Your task to perform on an android device: Play the new Ariana Grande video on YouTube Image 0: 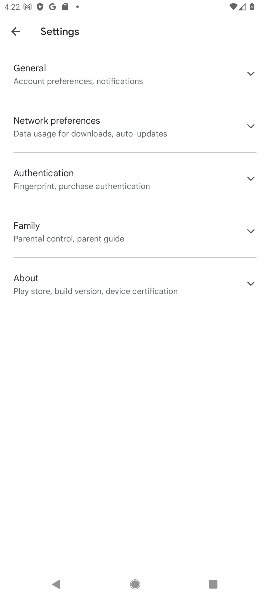
Step 0: press home button
Your task to perform on an android device: Play the new Ariana Grande video on YouTube Image 1: 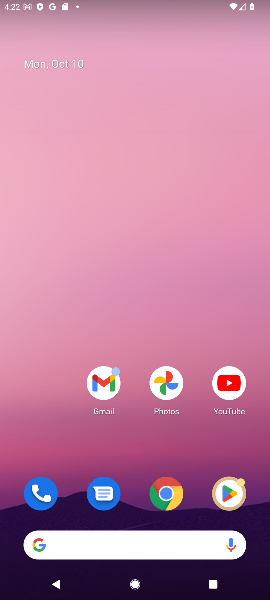
Step 1: click (231, 393)
Your task to perform on an android device: Play the new Ariana Grande video on YouTube Image 2: 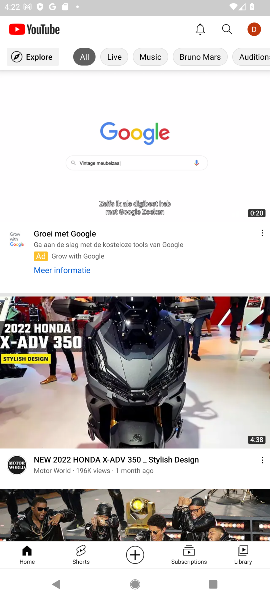
Step 2: click (226, 34)
Your task to perform on an android device: Play the new Ariana Grande video on YouTube Image 3: 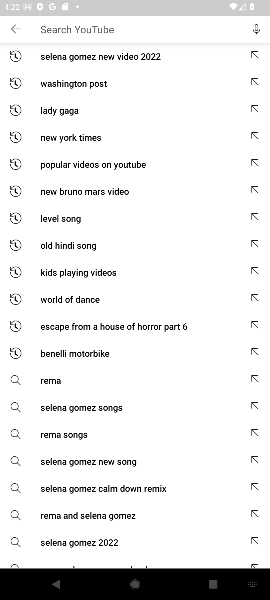
Step 3: type "Ariana Grande"
Your task to perform on an android device: Play the new Ariana Grande video on YouTube Image 4: 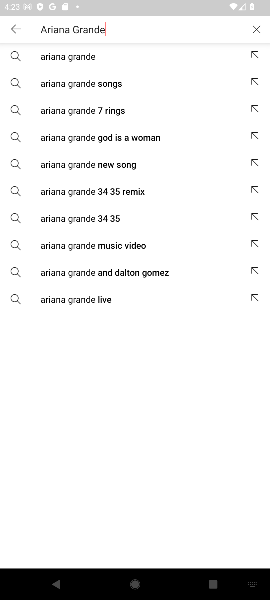
Step 4: click (94, 54)
Your task to perform on an android device: Play the new Ariana Grande video on YouTube Image 5: 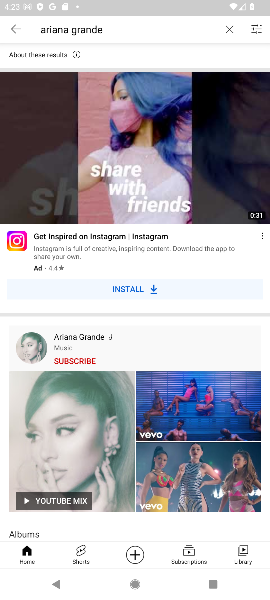
Step 5: task complete